Your task to perform on an android device: Search for "rayovac triple a" on amazon, select the first entry, and add it to the cart. Image 0: 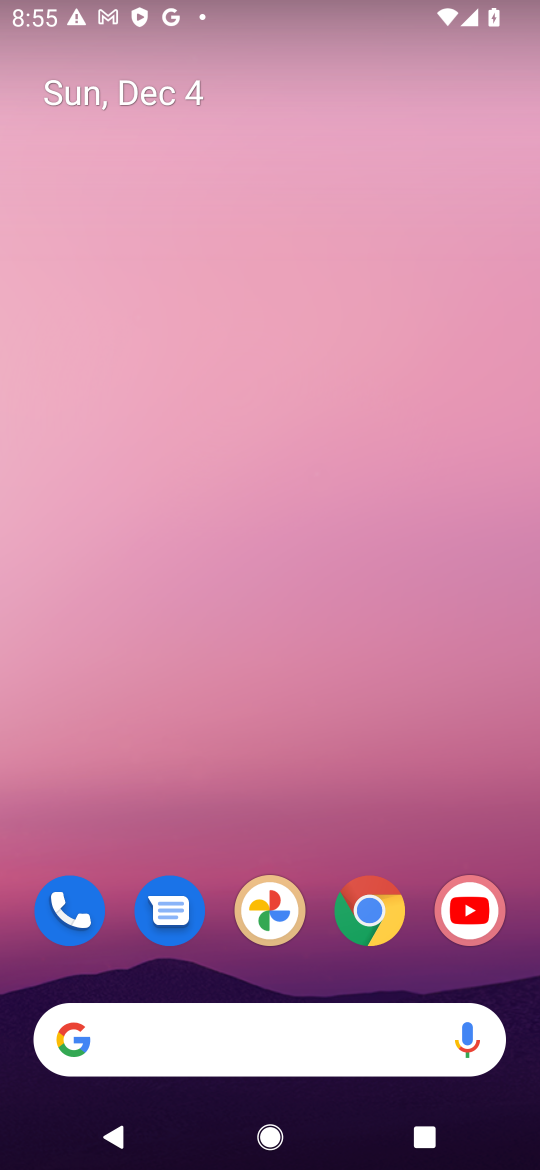
Step 0: drag from (358, 1102) to (293, 37)
Your task to perform on an android device: Search for "rayovac triple a" on amazon, select the first entry, and add it to the cart. Image 1: 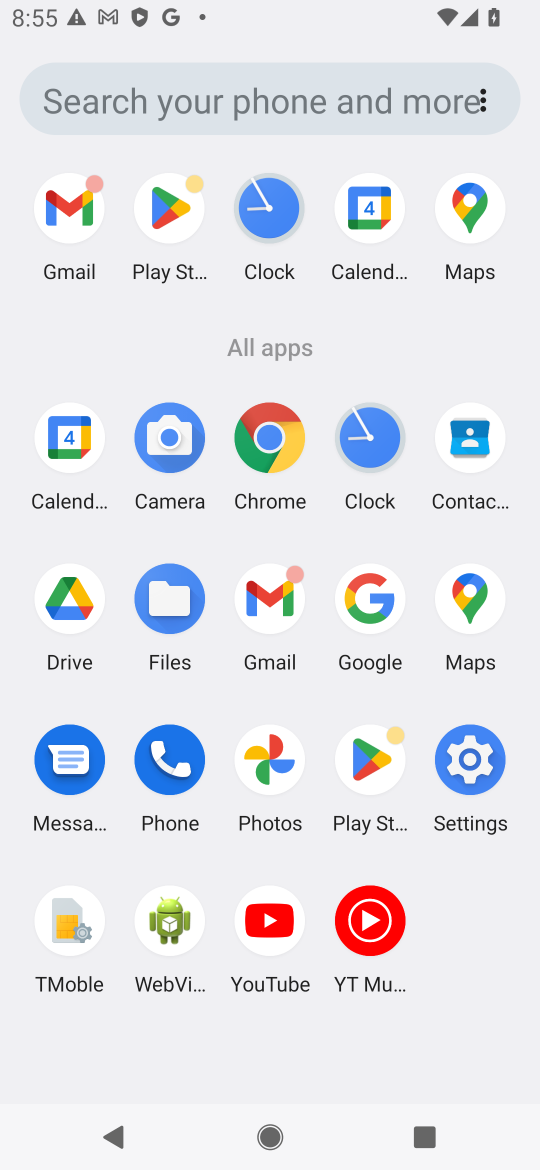
Step 1: click (264, 449)
Your task to perform on an android device: Search for "rayovac triple a" on amazon, select the first entry, and add it to the cart. Image 2: 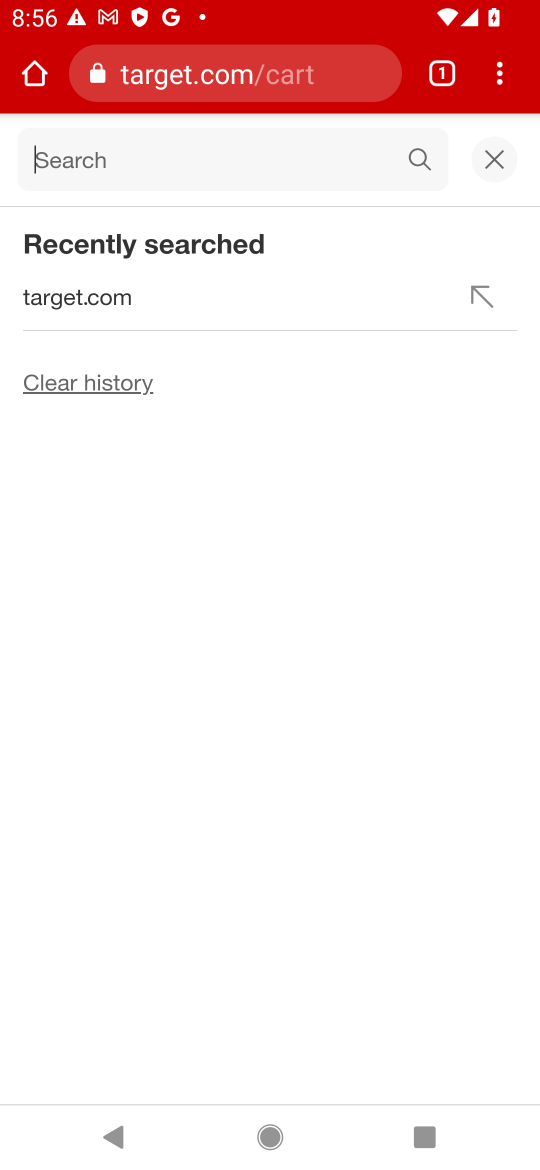
Step 2: click (167, 50)
Your task to perform on an android device: Search for "rayovac triple a" on amazon, select the first entry, and add it to the cart. Image 3: 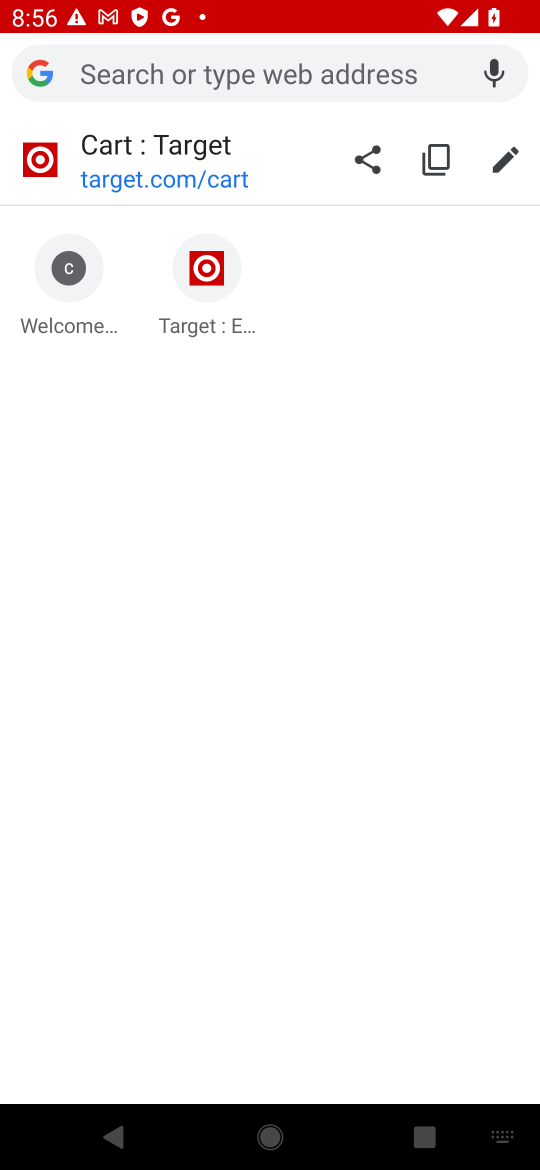
Step 3: type "amazon"
Your task to perform on an android device: Search for "rayovac triple a" on amazon, select the first entry, and add it to the cart. Image 4: 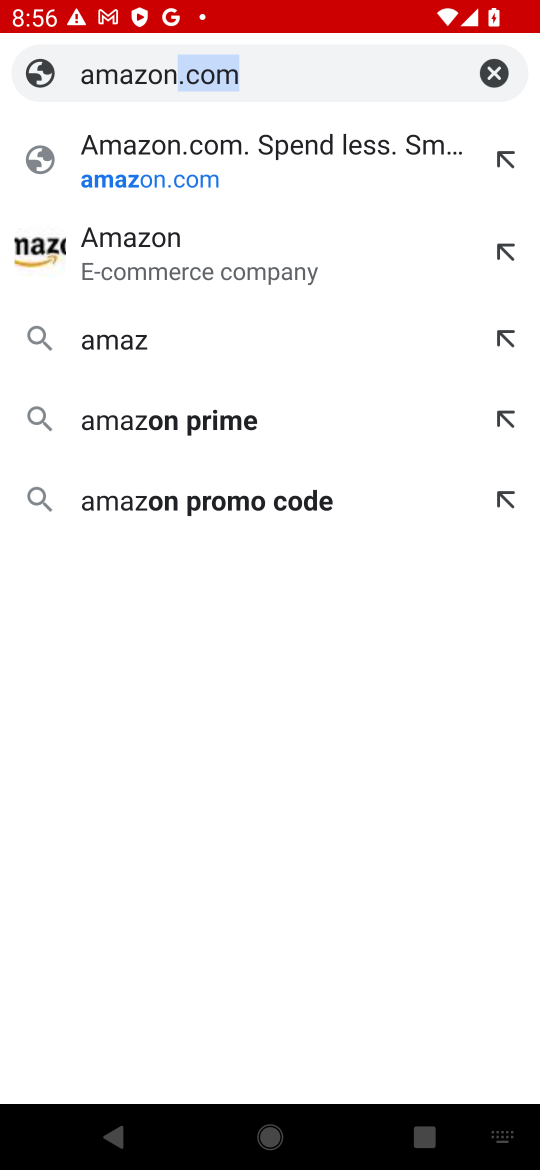
Step 4: type ""
Your task to perform on an android device: Search for "rayovac triple a" on amazon, select the first entry, and add it to the cart. Image 5: 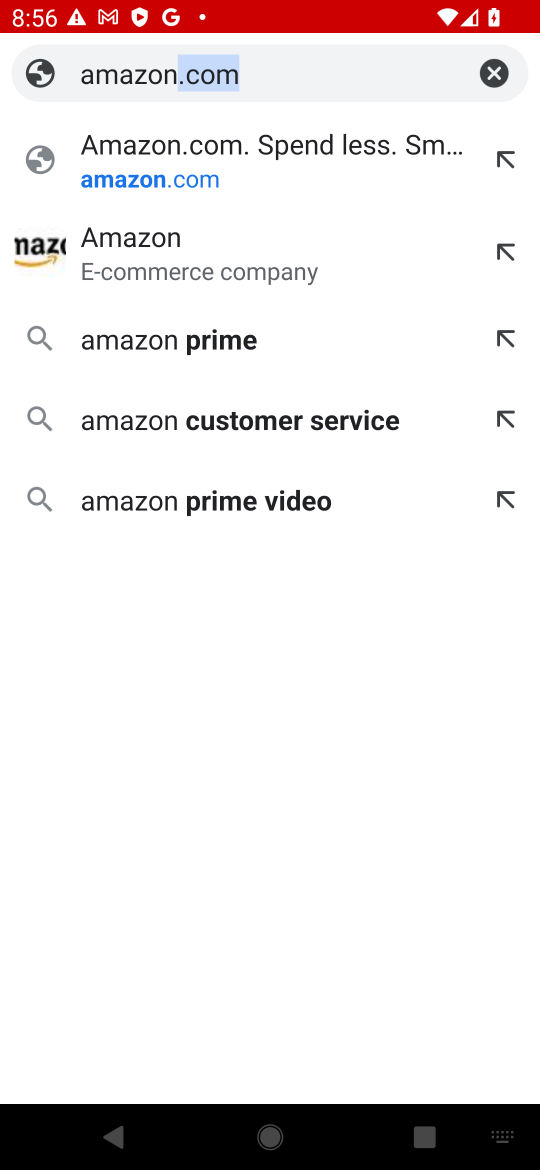
Step 5: click (172, 175)
Your task to perform on an android device: Search for "rayovac triple a" on amazon, select the first entry, and add it to the cart. Image 6: 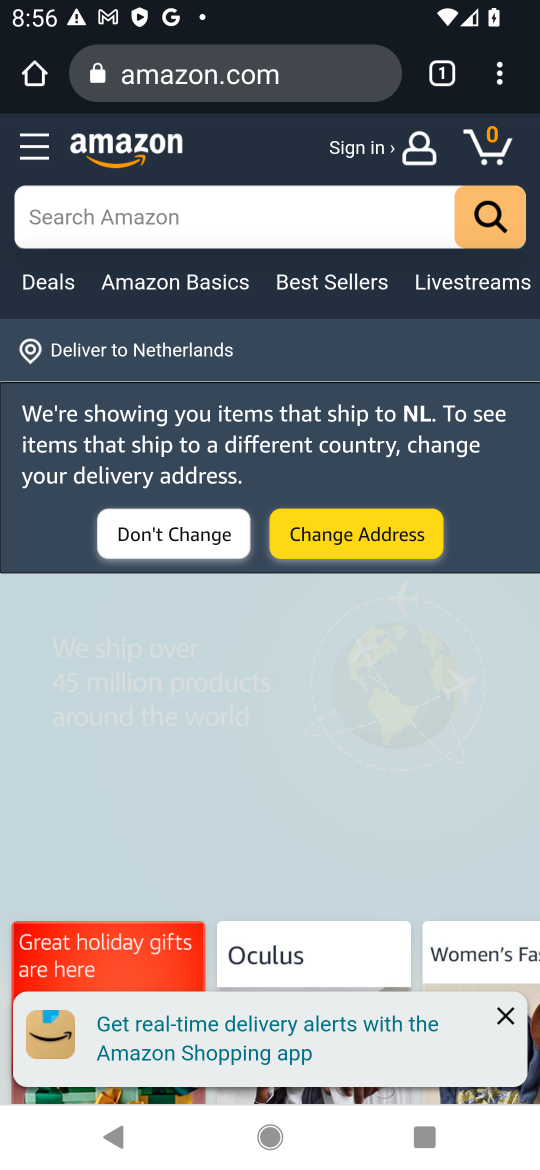
Step 6: click (122, 199)
Your task to perform on an android device: Search for "rayovac triple a" on amazon, select the first entry, and add it to the cart. Image 7: 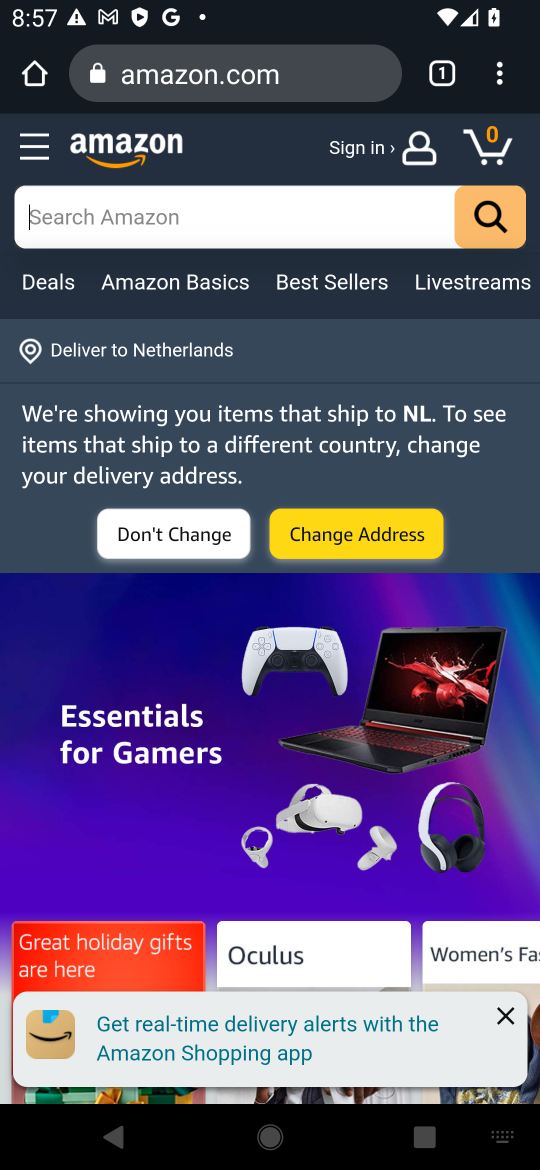
Step 7: type "rayovac triple a"
Your task to perform on an android device: Search for "rayovac triple a" on amazon, select the first entry, and add it to the cart. Image 8: 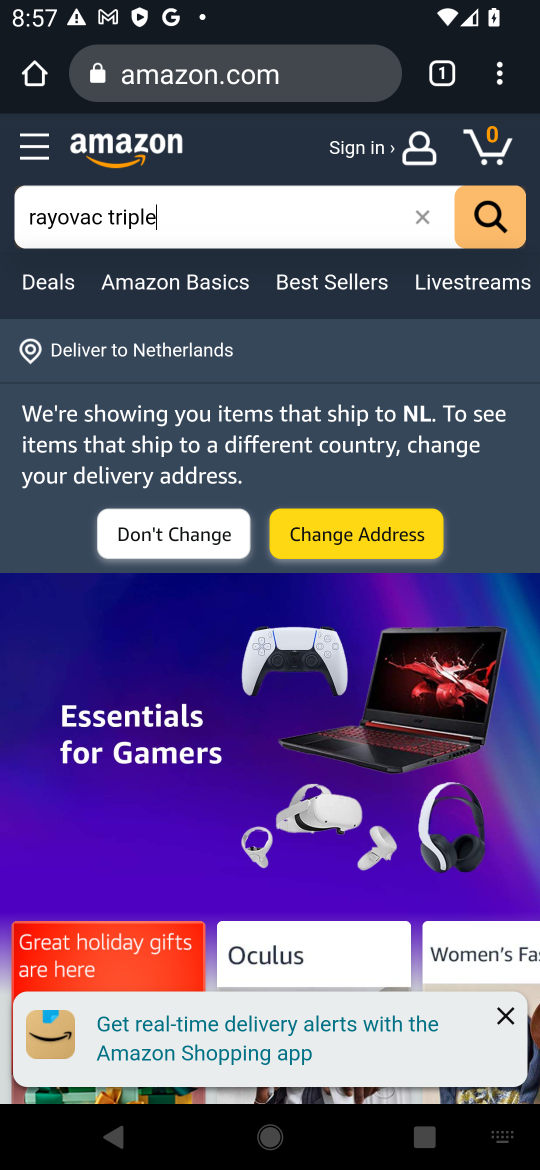
Step 8: type ""
Your task to perform on an android device: Search for "rayovac triple a" on amazon, select the first entry, and add it to the cart. Image 9: 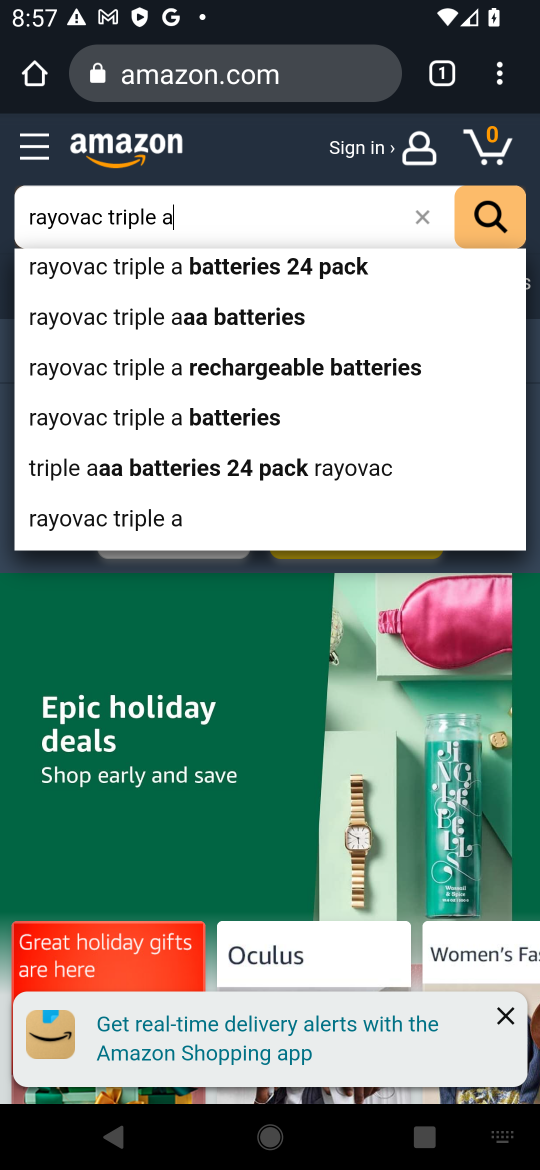
Step 9: click (108, 521)
Your task to perform on an android device: Search for "rayovac triple a" on amazon, select the first entry, and add it to the cart. Image 10: 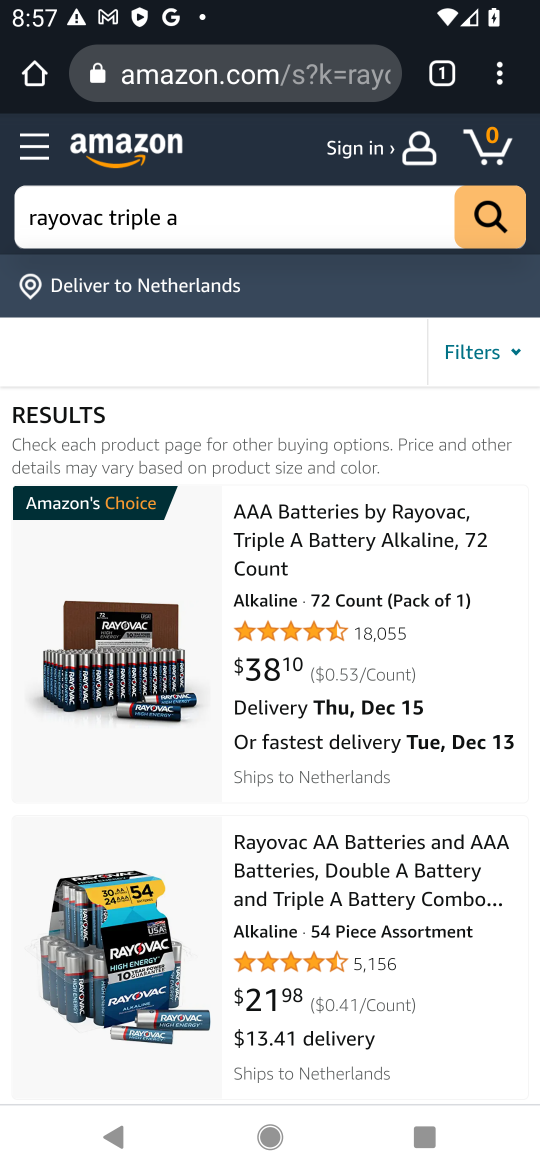
Step 10: click (151, 650)
Your task to perform on an android device: Search for "rayovac triple a" on amazon, select the first entry, and add it to the cart. Image 11: 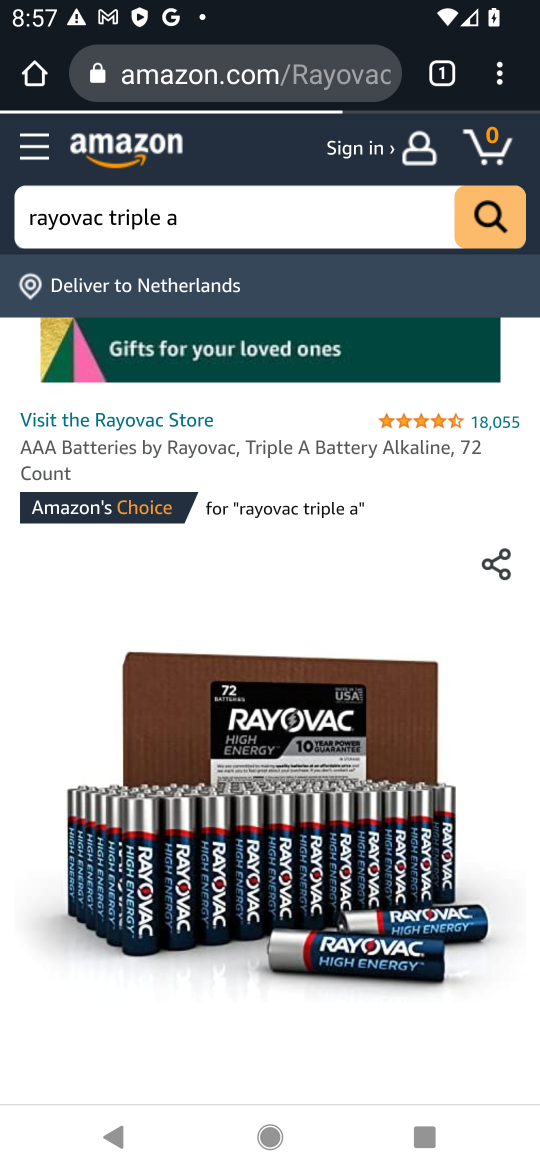
Step 11: drag from (273, 922) to (239, 236)
Your task to perform on an android device: Search for "rayovac triple a" on amazon, select the first entry, and add it to the cart. Image 12: 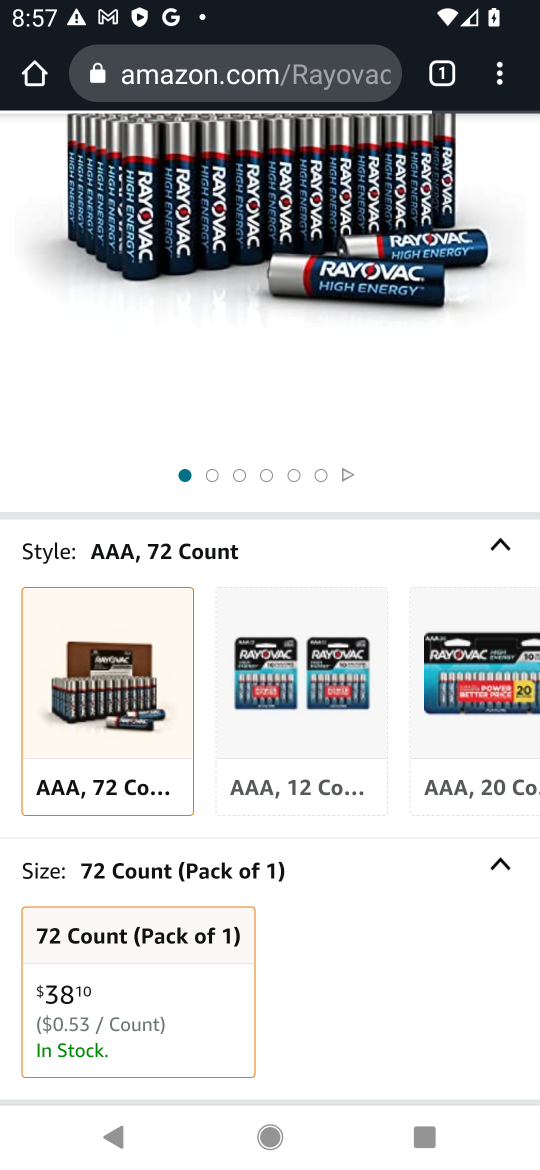
Step 12: drag from (283, 913) to (273, 423)
Your task to perform on an android device: Search for "rayovac triple a" on amazon, select the first entry, and add it to the cart. Image 13: 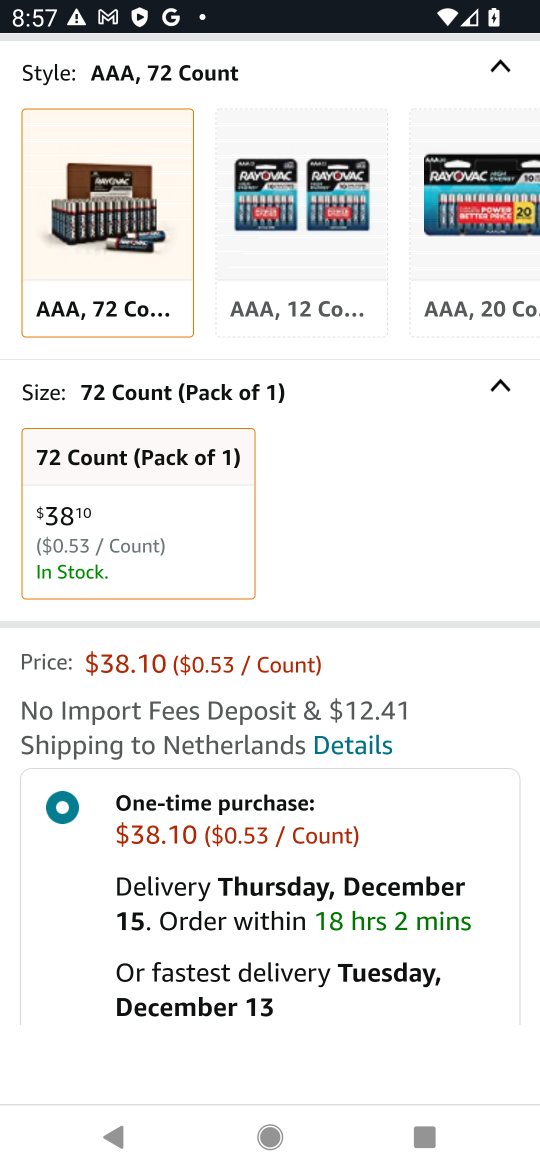
Step 13: drag from (271, 841) to (198, 252)
Your task to perform on an android device: Search for "rayovac triple a" on amazon, select the first entry, and add it to the cart. Image 14: 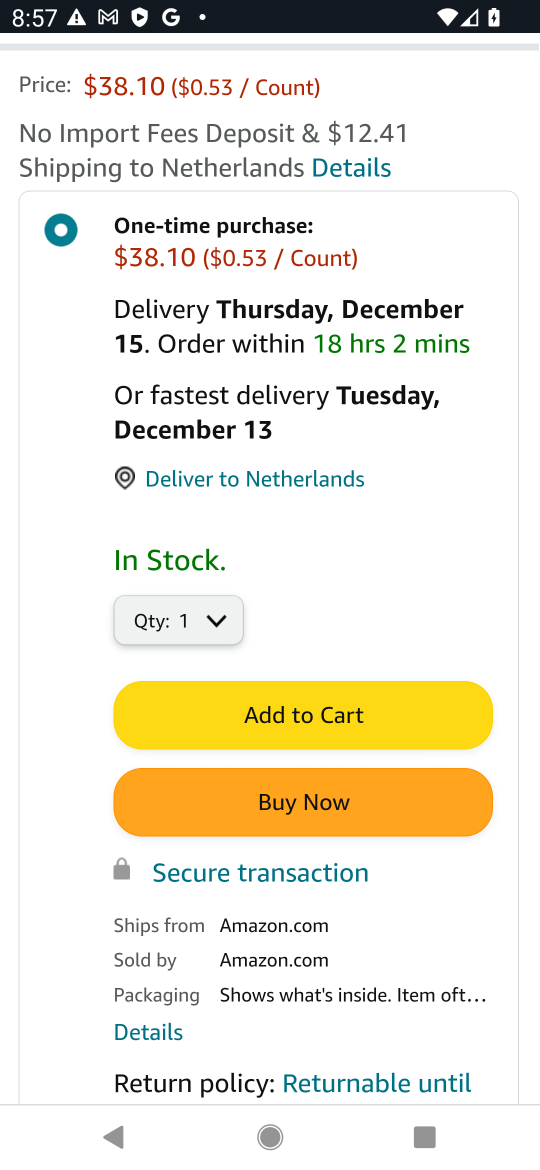
Step 14: click (294, 719)
Your task to perform on an android device: Search for "rayovac triple a" on amazon, select the first entry, and add it to the cart. Image 15: 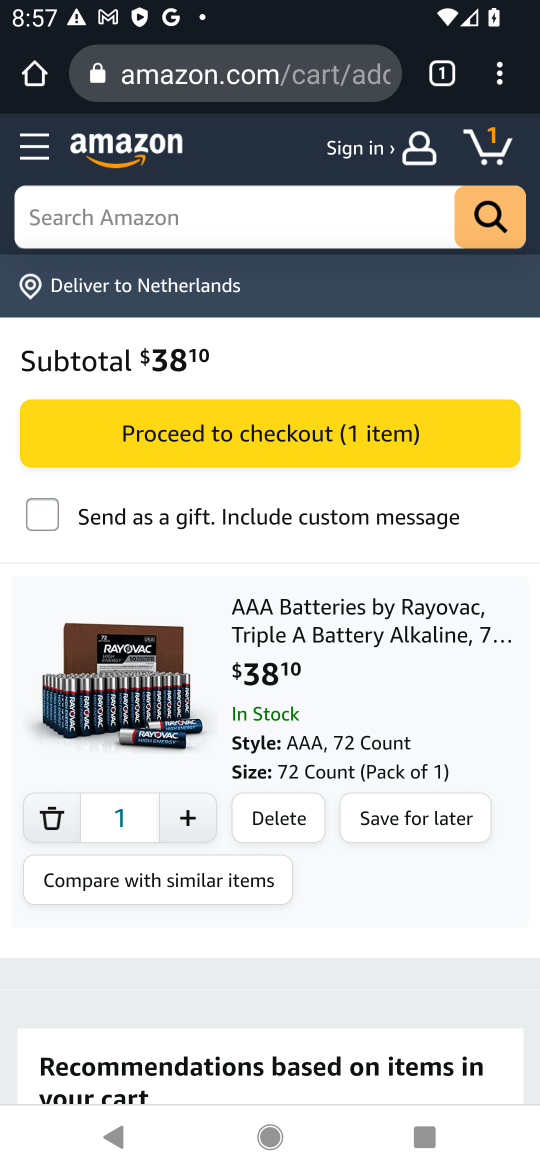
Step 15: task complete